Your task to perform on an android device: Go to ESPN.com Image 0: 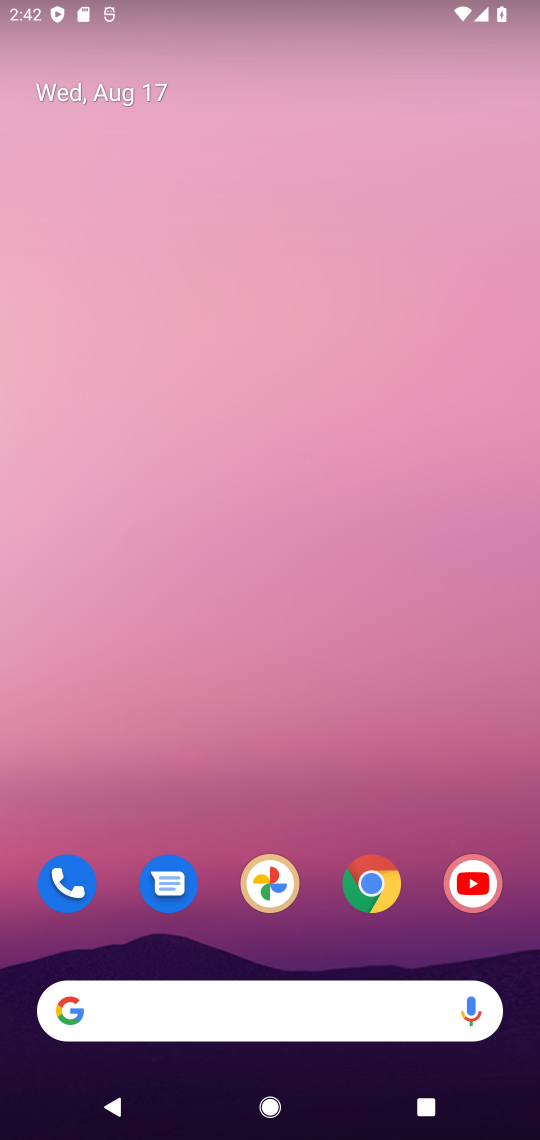
Step 0: drag from (327, 937) to (291, 76)
Your task to perform on an android device: Go to ESPN.com Image 1: 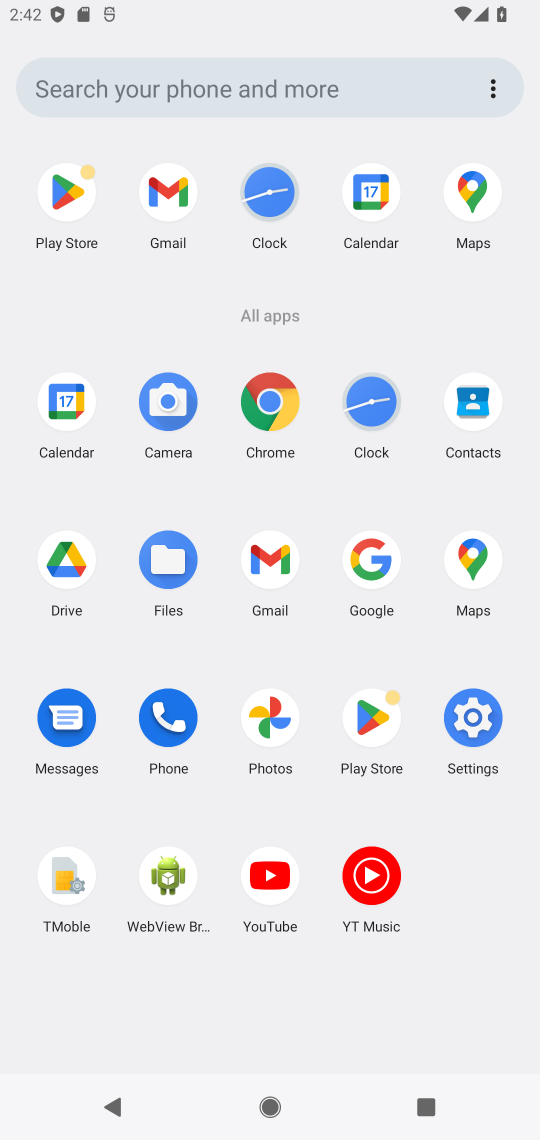
Step 1: click (258, 402)
Your task to perform on an android device: Go to ESPN.com Image 2: 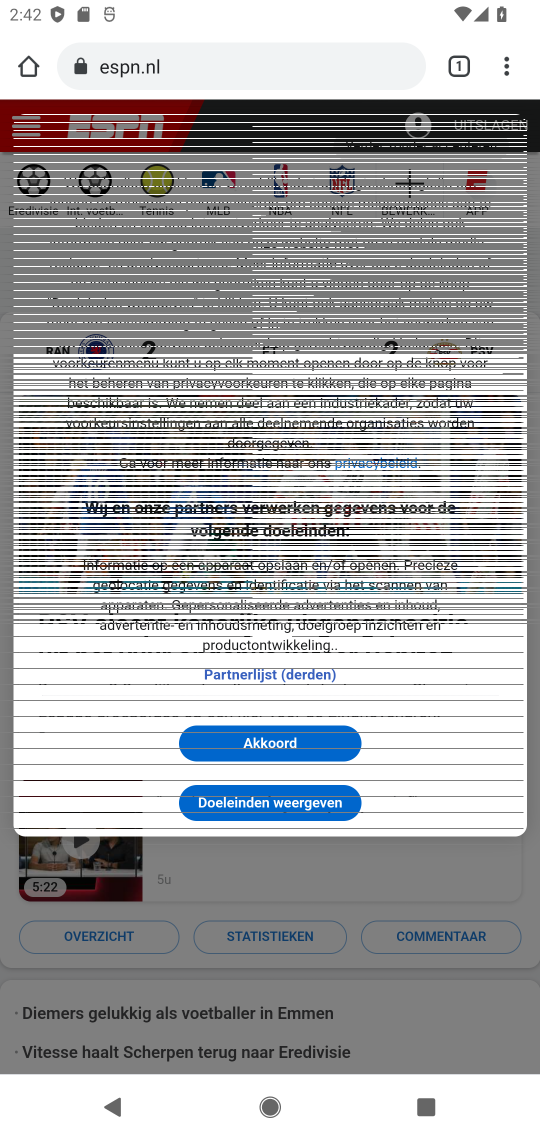
Step 2: task complete